Your task to perform on an android device: Search for dining sets on article.com Image 0: 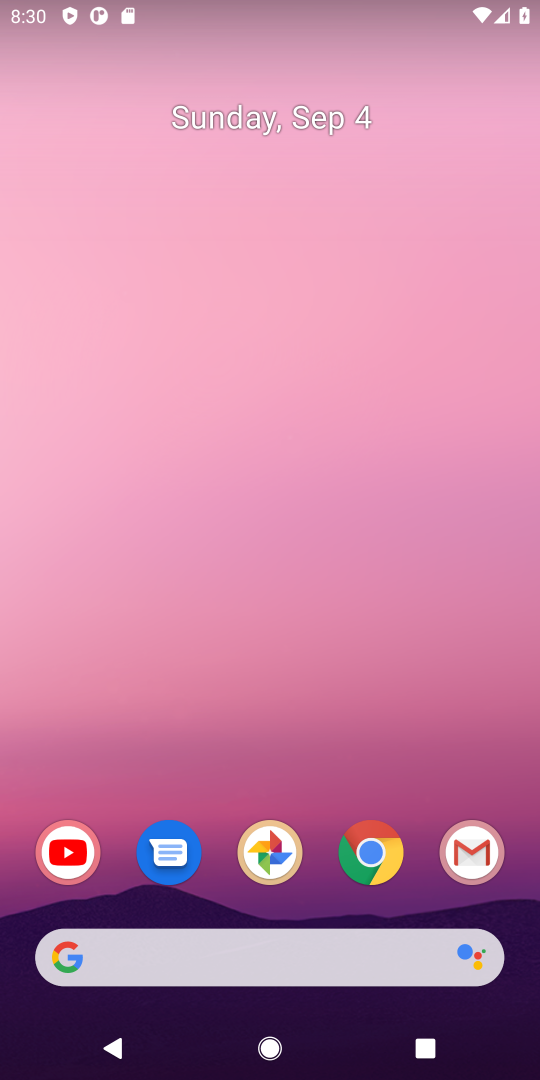
Step 0: drag from (475, 379) to (433, 80)
Your task to perform on an android device: Search for dining sets on article.com Image 1: 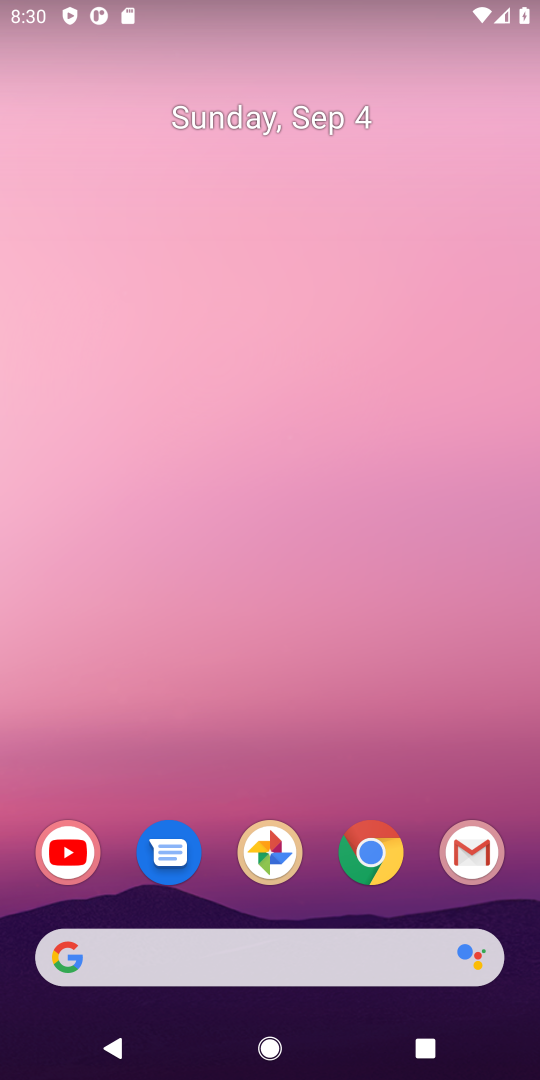
Step 1: drag from (405, 777) to (178, 5)
Your task to perform on an android device: Search for dining sets on article.com Image 2: 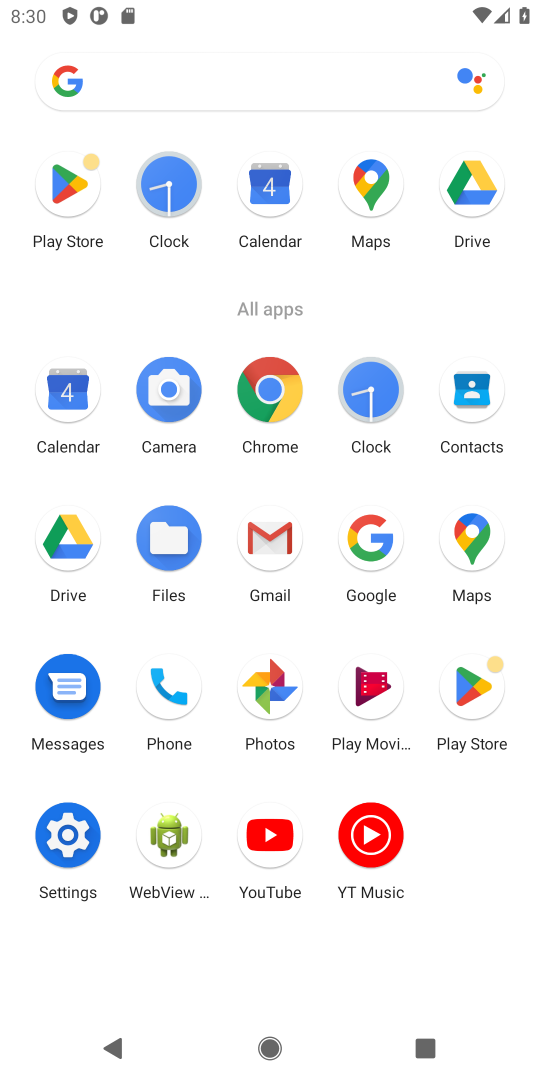
Step 2: click (392, 536)
Your task to perform on an android device: Search for dining sets on article.com Image 3: 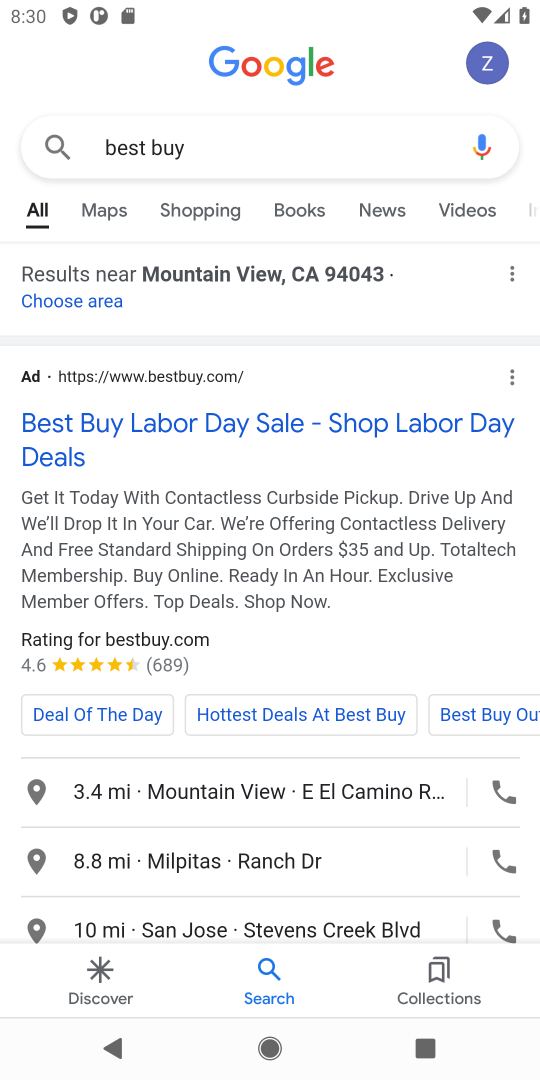
Step 3: press back button
Your task to perform on an android device: Search for dining sets on article.com Image 4: 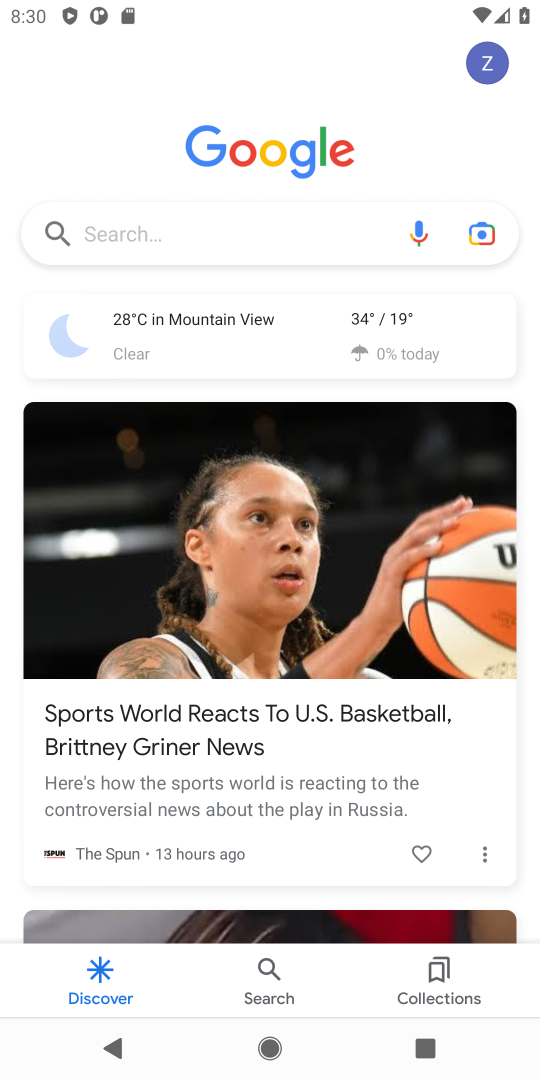
Step 4: click (154, 232)
Your task to perform on an android device: Search for dining sets on article.com Image 5: 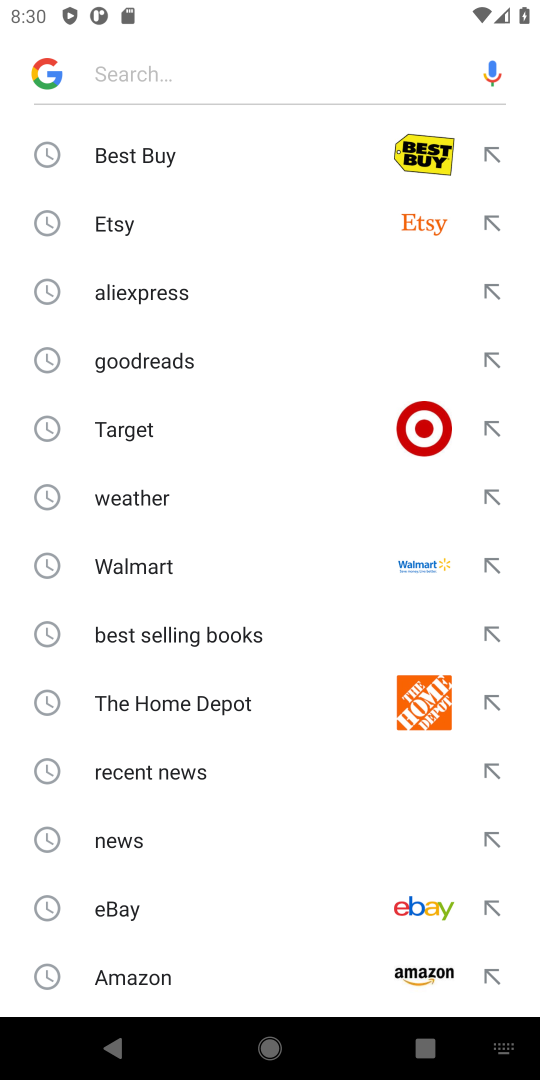
Step 5: type "article.com"
Your task to perform on an android device: Search for dining sets on article.com Image 6: 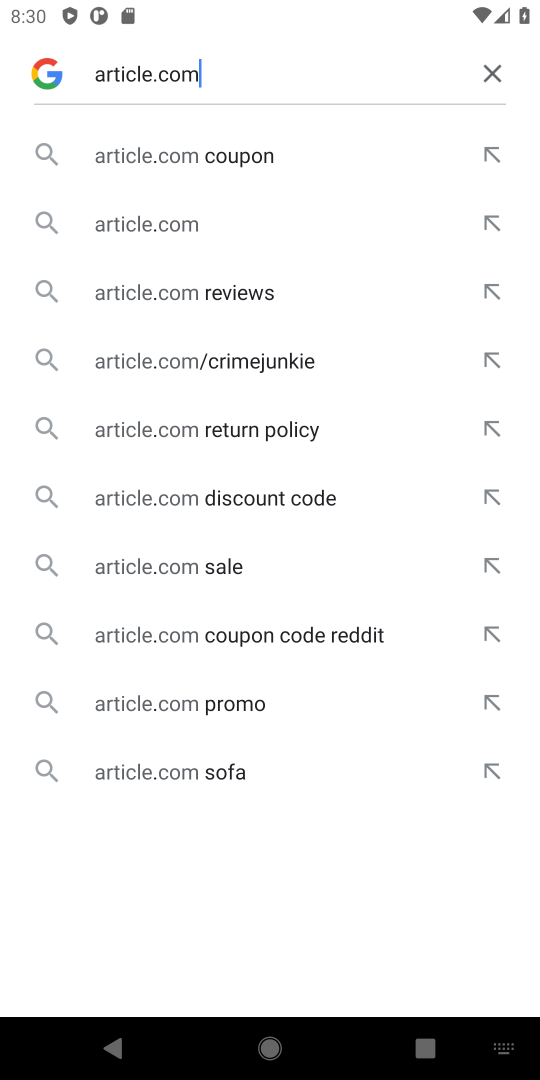
Step 6: click (158, 212)
Your task to perform on an android device: Search for dining sets on article.com Image 7: 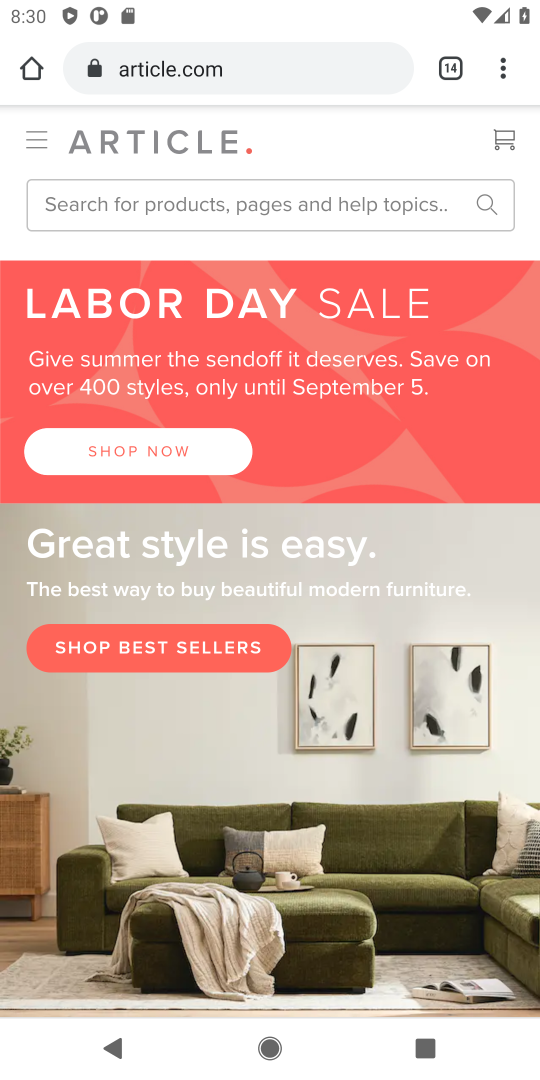
Step 7: click (135, 215)
Your task to perform on an android device: Search for dining sets on article.com Image 8: 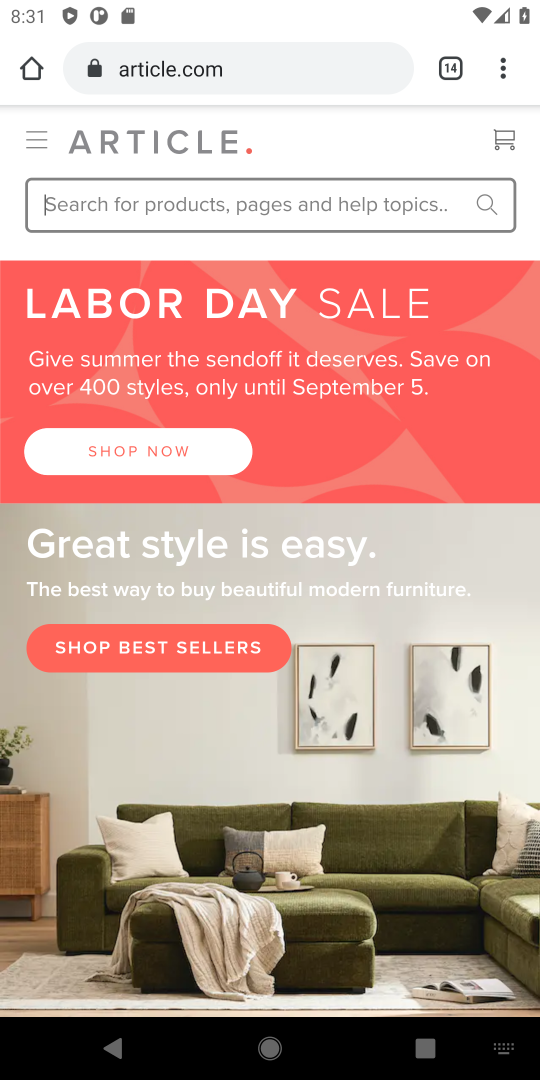
Step 8: click (134, 216)
Your task to perform on an android device: Search for dining sets on article.com Image 9: 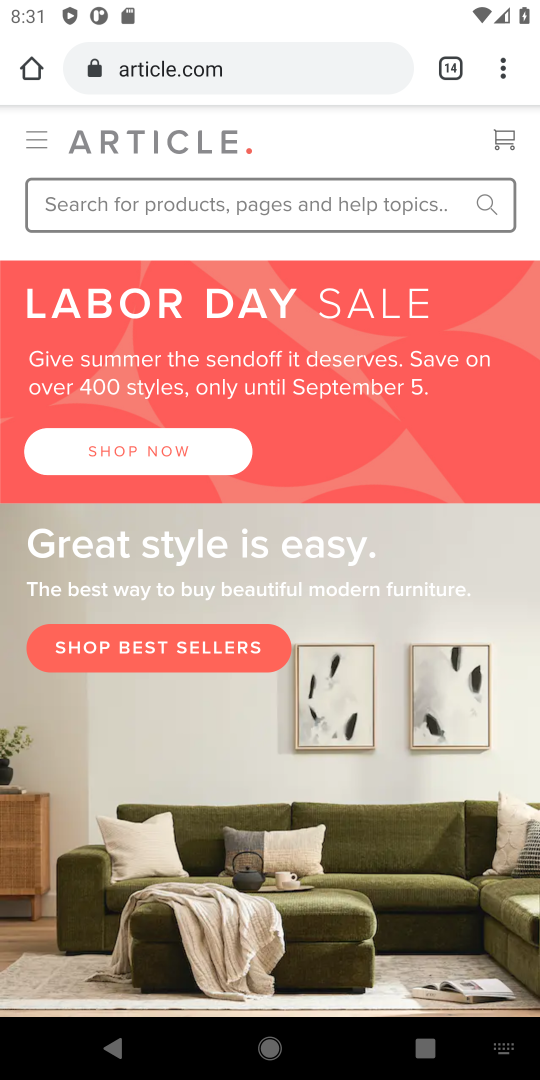
Step 9: type "dining "
Your task to perform on an android device: Search for dining sets on article.com Image 10: 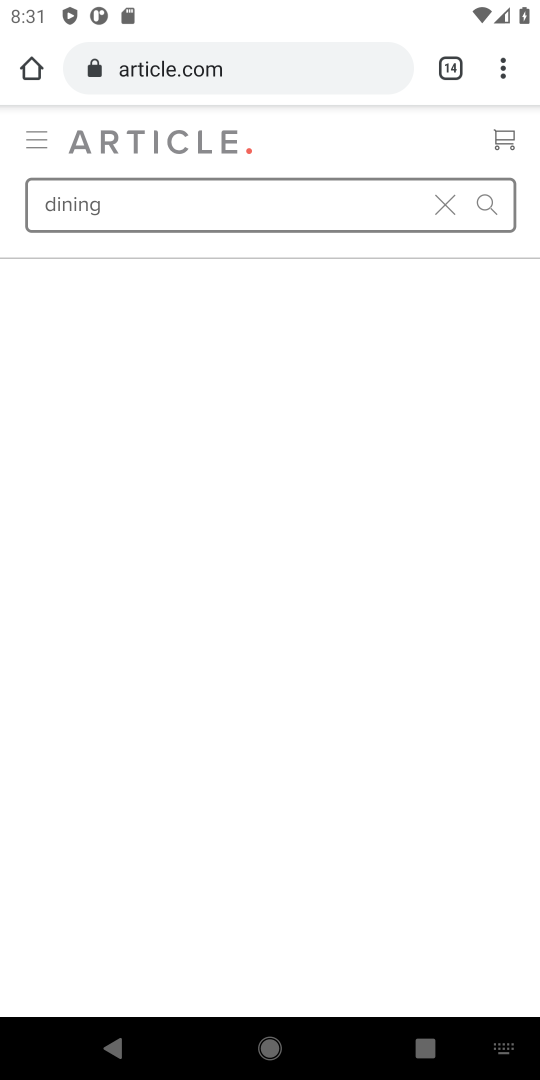
Step 10: click (493, 199)
Your task to perform on an android device: Search for dining sets on article.com Image 11: 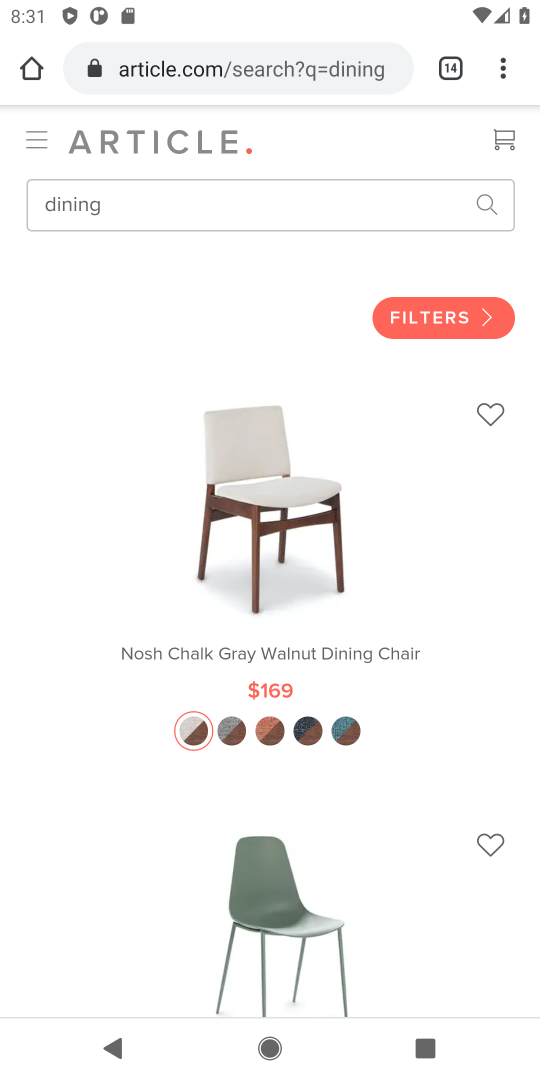
Step 11: task complete